Your task to perform on an android device: Open network settings Image 0: 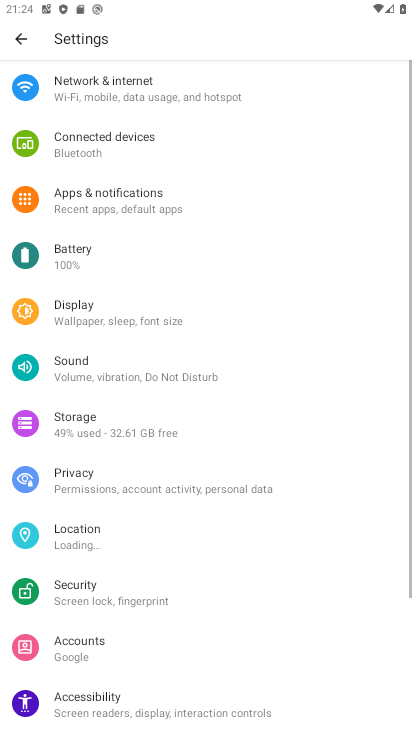
Step 0: press home button
Your task to perform on an android device: Open network settings Image 1: 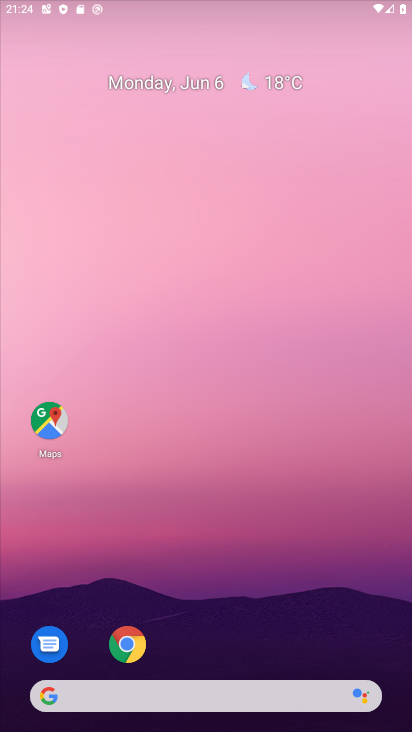
Step 1: drag from (347, 602) to (356, 134)
Your task to perform on an android device: Open network settings Image 2: 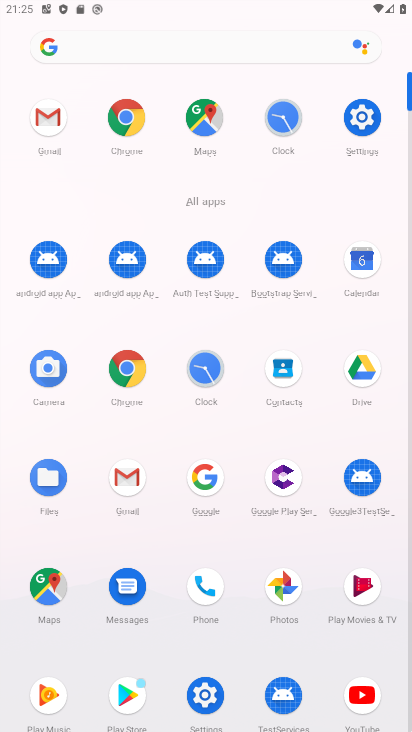
Step 2: click (224, 706)
Your task to perform on an android device: Open network settings Image 3: 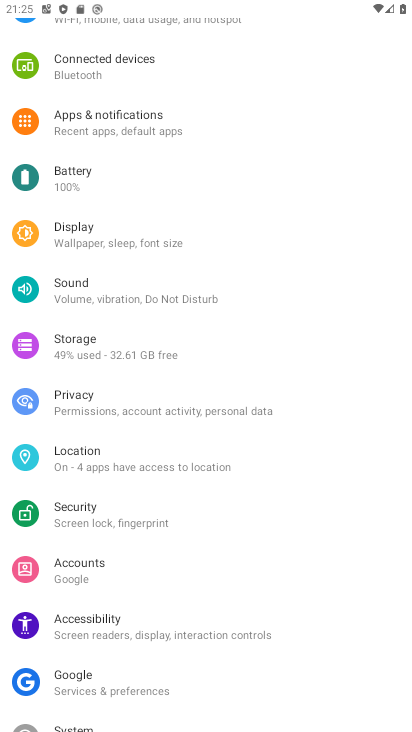
Step 3: drag from (197, 120) to (198, 468)
Your task to perform on an android device: Open network settings Image 4: 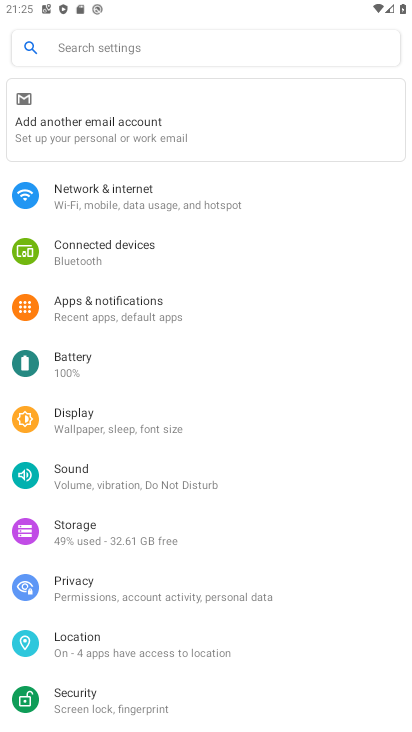
Step 4: click (167, 200)
Your task to perform on an android device: Open network settings Image 5: 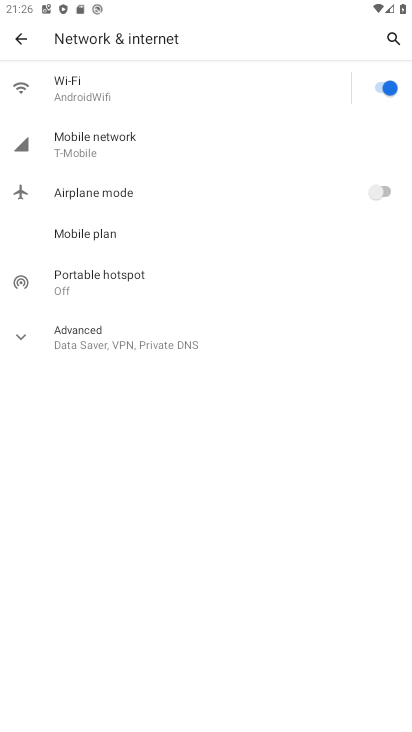
Step 5: task complete